Your task to perform on an android device: change alarm snooze length Image 0: 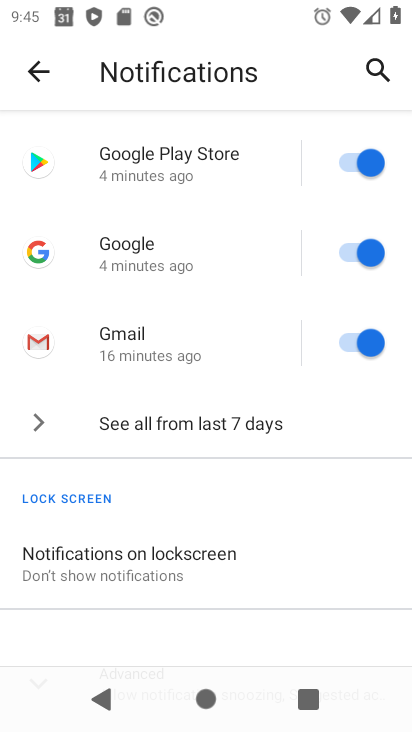
Step 0: drag from (118, 514) to (153, 81)
Your task to perform on an android device: change alarm snooze length Image 1: 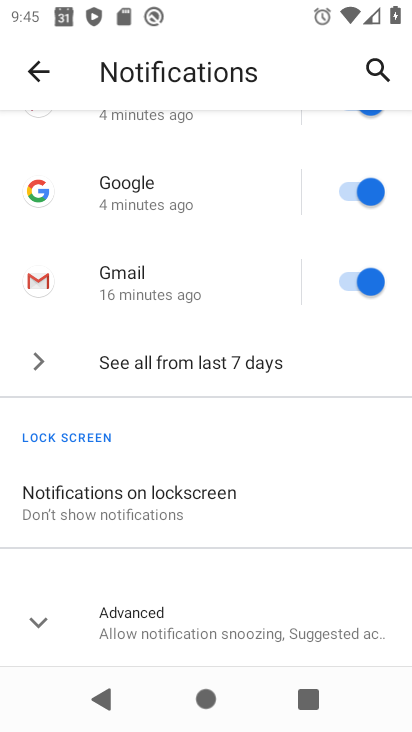
Step 1: press home button
Your task to perform on an android device: change alarm snooze length Image 2: 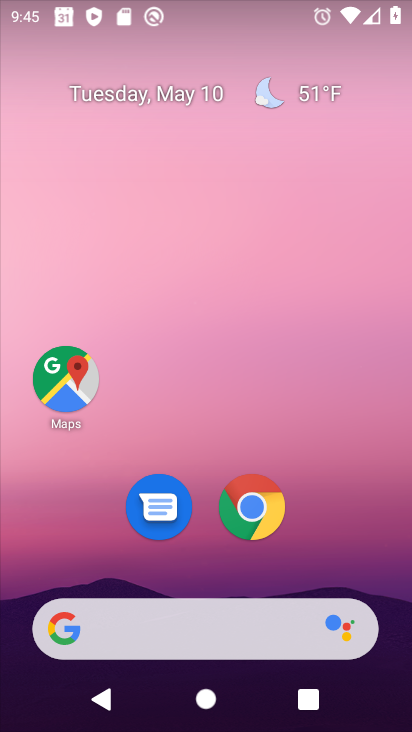
Step 2: drag from (219, 571) to (245, 142)
Your task to perform on an android device: change alarm snooze length Image 3: 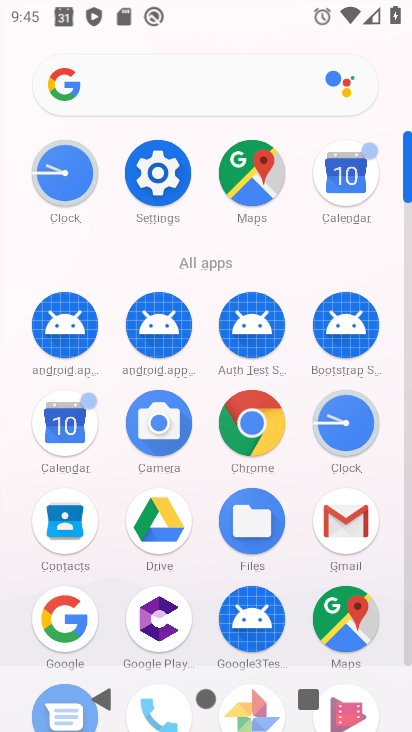
Step 3: click (63, 192)
Your task to perform on an android device: change alarm snooze length Image 4: 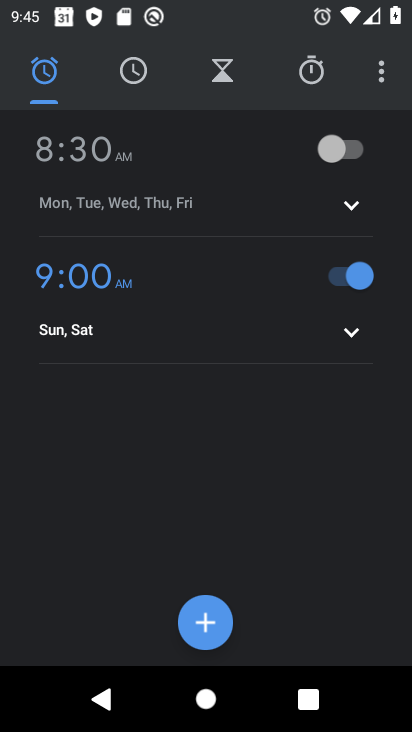
Step 4: click (364, 68)
Your task to perform on an android device: change alarm snooze length Image 5: 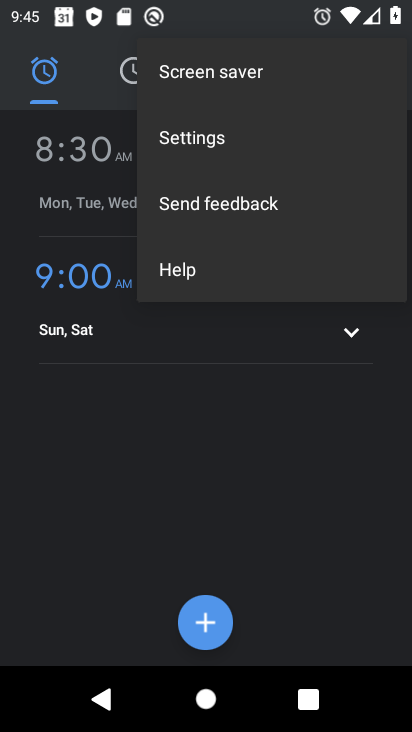
Step 5: click (203, 137)
Your task to perform on an android device: change alarm snooze length Image 6: 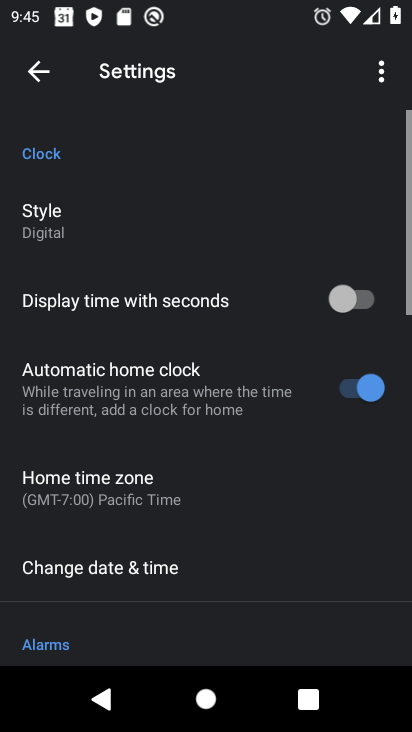
Step 6: drag from (130, 570) to (159, 218)
Your task to perform on an android device: change alarm snooze length Image 7: 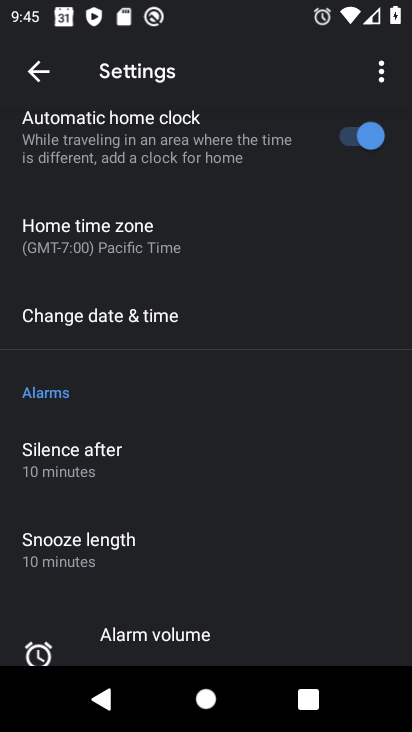
Step 7: click (173, 577)
Your task to perform on an android device: change alarm snooze length Image 8: 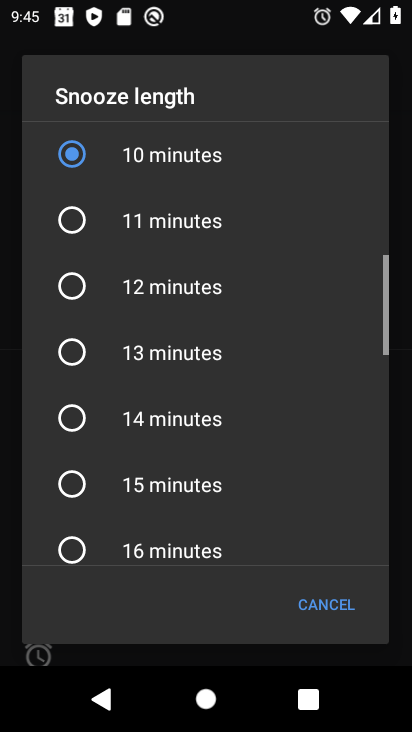
Step 8: click (193, 561)
Your task to perform on an android device: change alarm snooze length Image 9: 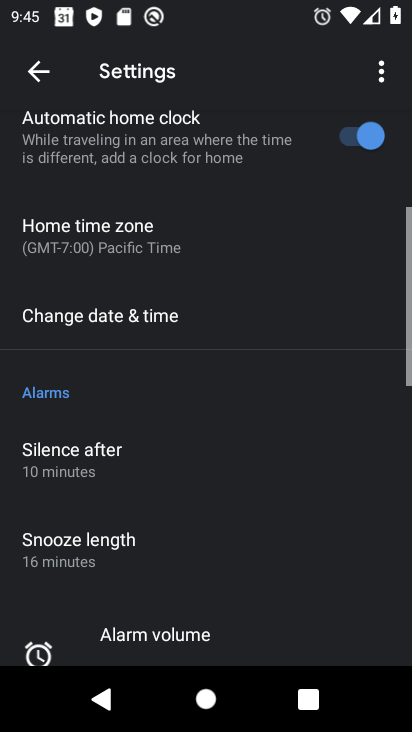
Step 9: task complete